Your task to perform on an android device: Open accessibility settings Image 0: 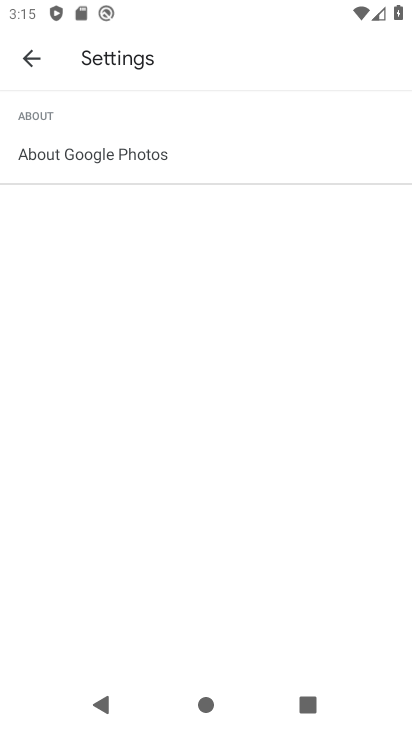
Step 0: press home button
Your task to perform on an android device: Open accessibility settings Image 1: 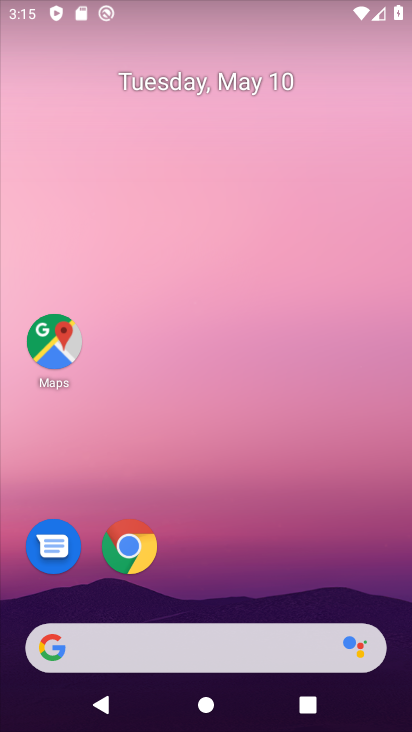
Step 1: drag from (241, 534) to (322, 16)
Your task to perform on an android device: Open accessibility settings Image 2: 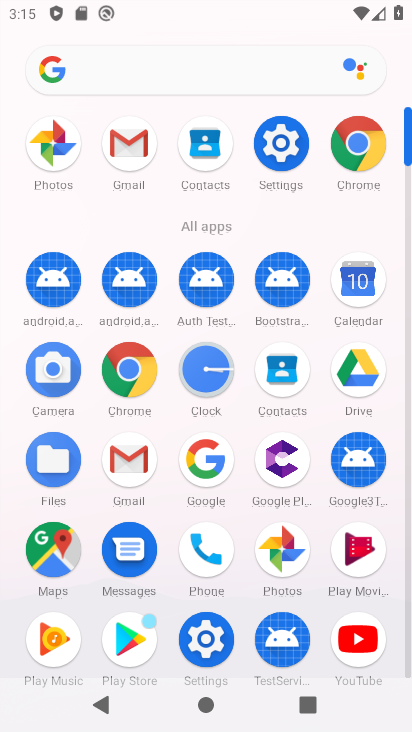
Step 2: click (272, 163)
Your task to perform on an android device: Open accessibility settings Image 3: 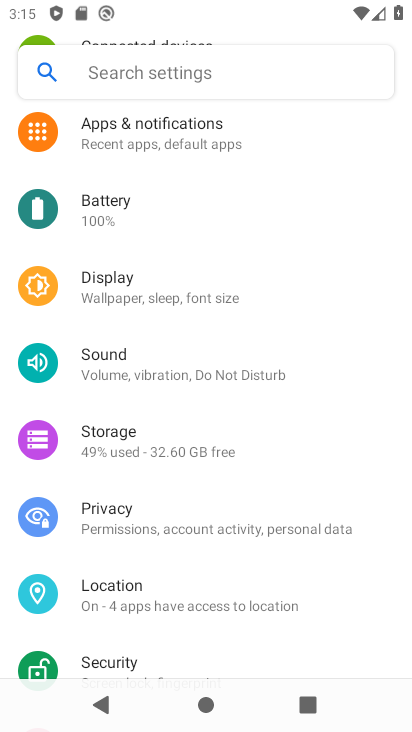
Step 3: drag from (154, 611) to (214, 198)
Your task to perform on an android device: Open accessibility settings Image 4: 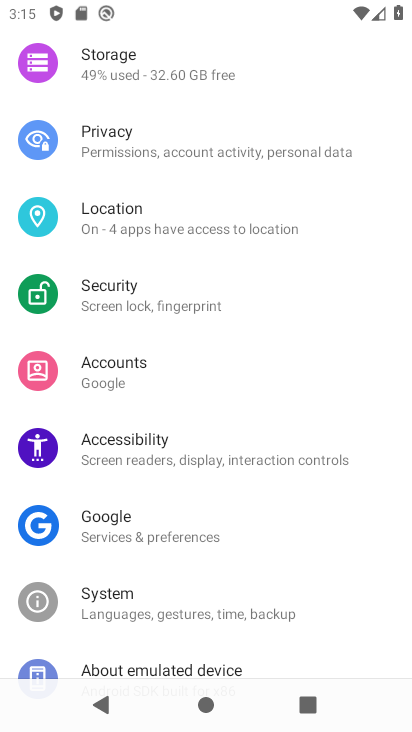
Step 4: click (156, 450)
Your task to perform on an android device: Open accessibility settings Image 5: 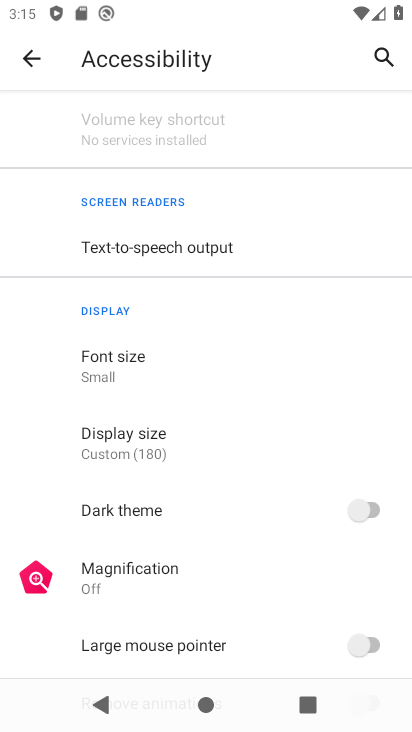
Step 5: task complete